Your task to perform on an android device: turn on notifications settings in the gmail app Image 0: 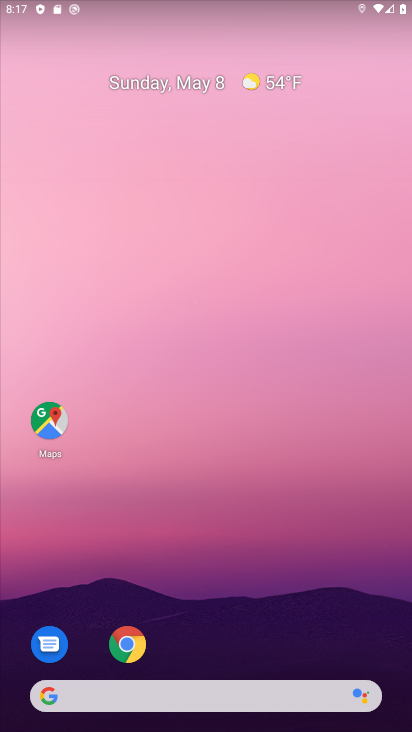
Step 0: drag from (211, 659) to (210, 238)
Your task to perform on an android device: turn on notifications settings in the gmail app Image 1: 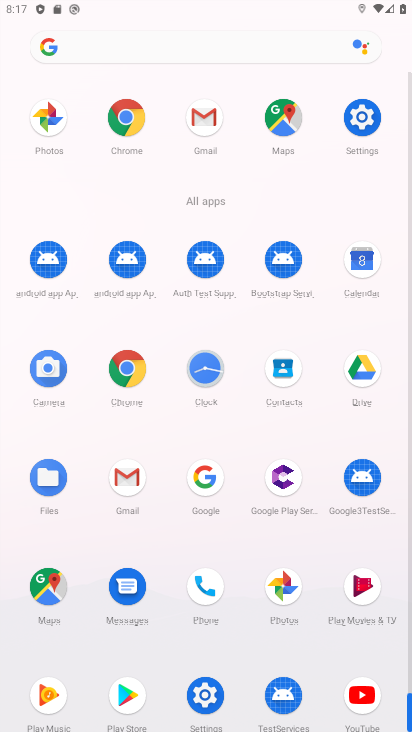
Step 1: click (128, 478)
Your task to perform on an android device: turn on notifications settings in the gmail app Image 2: 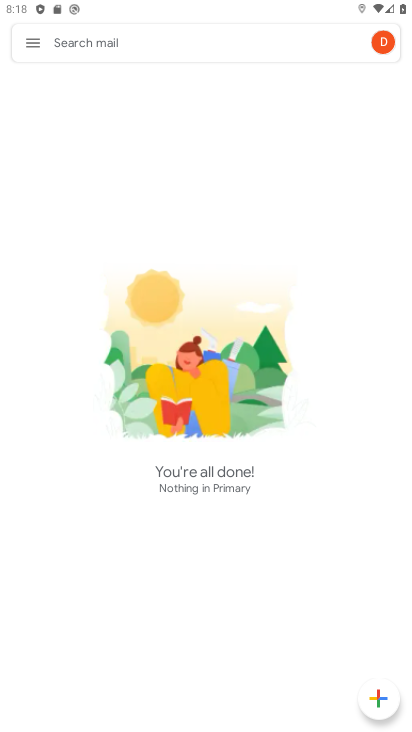
Step 2: click (36, 51)
Your task to perform on an android device: turn on notifications settings in the gmail app Image 3: 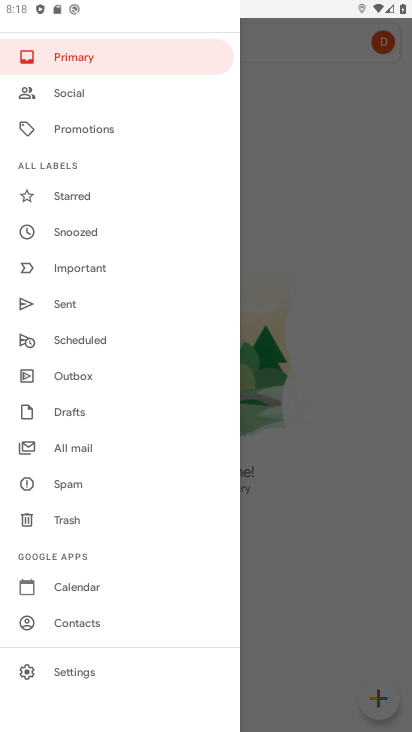
Step 3: drag from (157, 623) to (134, 40)
Your task to perform on an android device: turn on notifications settings in the gmail app Image 4: 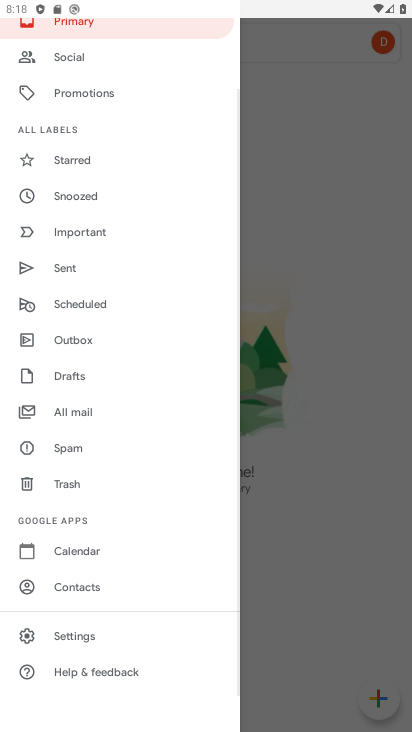
Step 4: click (96, 635)
Your task to perform on an android device: turn on notifications settings in the gmail app Image 5: 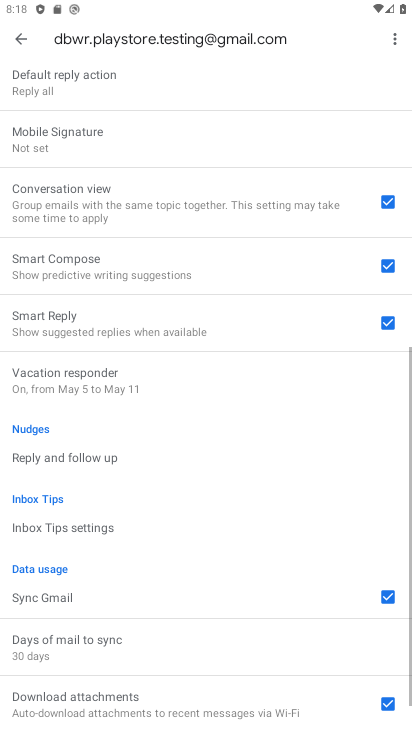
Step 5: drag from (181, 627) to (241, 115)
Your task to perform on an android device: turn on notifications settings in the gmail app Image 6: 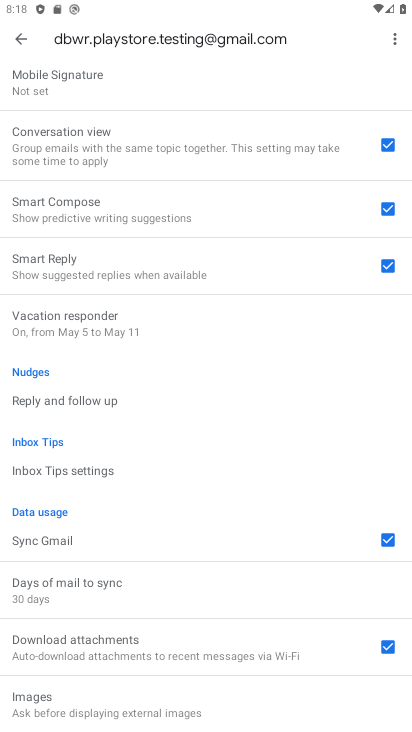
Step 6: drag from (200, 182) to (192, 582)
Your task to perform on an android device: turn on notifications settings in the gmail app Image 7: 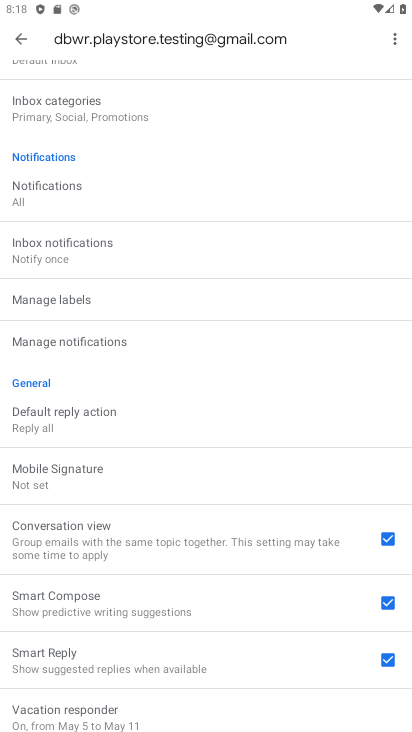
Step 7: click (127, 346)
Your task to perform on an android device: turn on notifications settings in the gmail app Image 8: 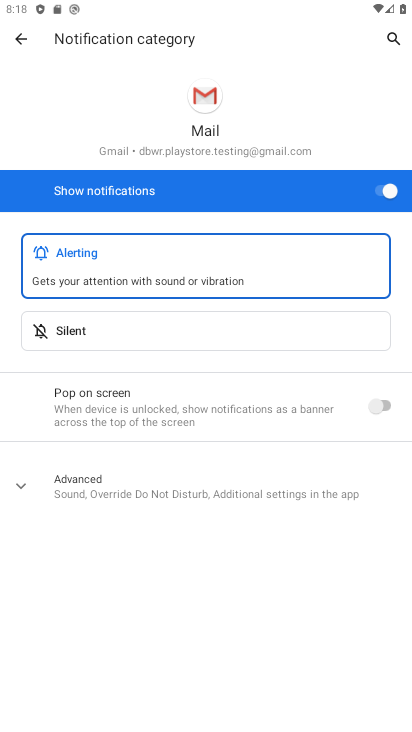
Step 8: task complete